Your task to perform on an android device: Open sound settings Image 0: 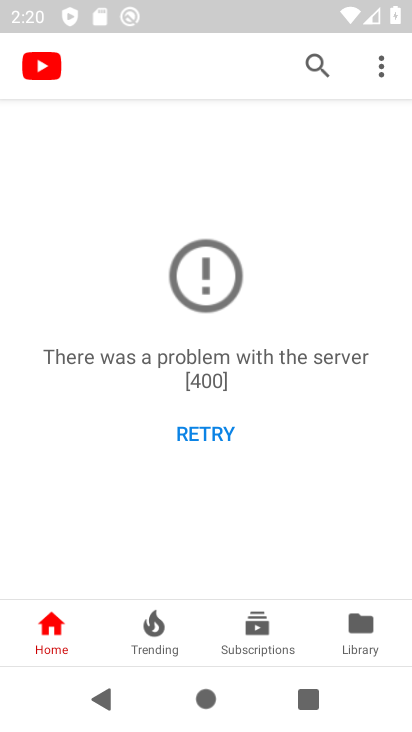
Step 0: click (190, 450)
Your task to perform on an android device: Open sound settings Image 1: 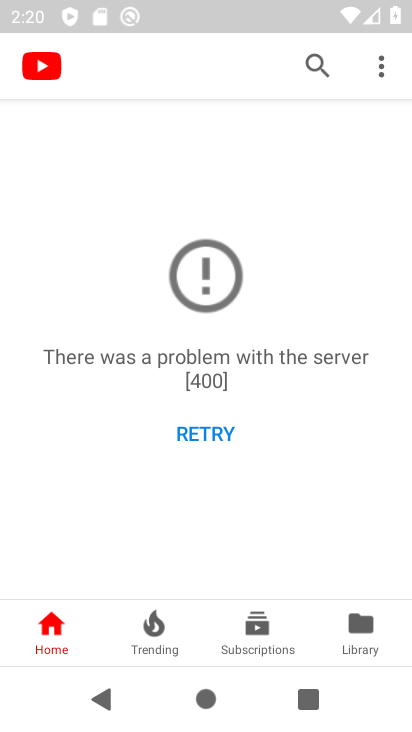
Step 1: click (213, 703)
Your task to perform on an android device: Open sound settings Image 2: 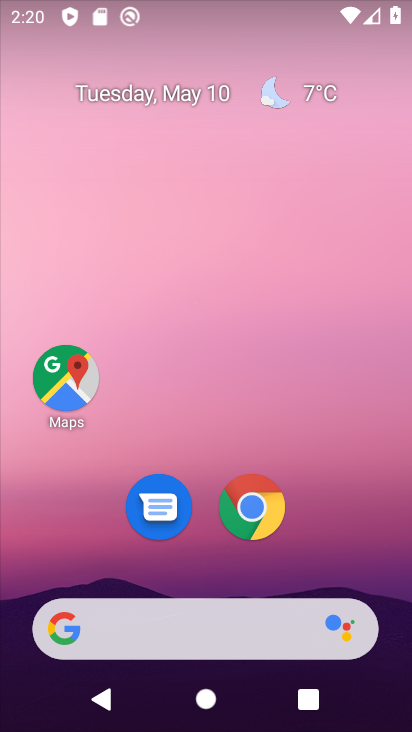
Step 2: drag from (398, 571) to (343, 138)
Your task to perform on an android device: Open sound settings Image 3: 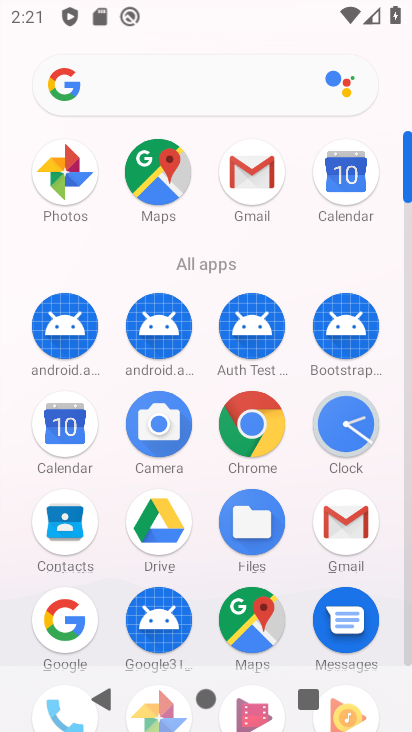
Step 3: click (409, 725)
Your task to perform on an android device: Open sound settings Image 4: 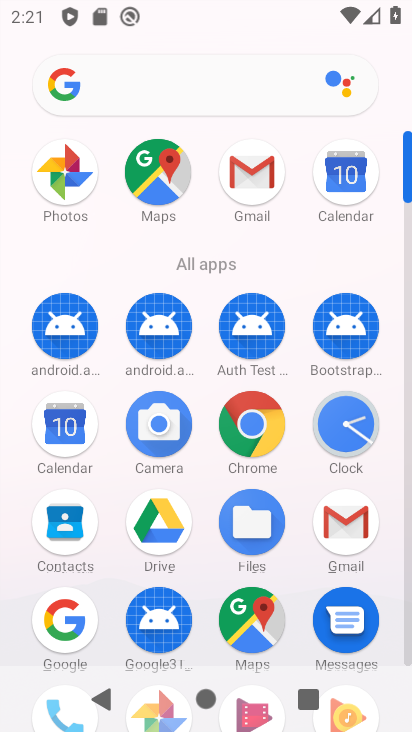
Step 4: click (407, 700)
Your task to perform on an android device: Open sound settings Image 5: 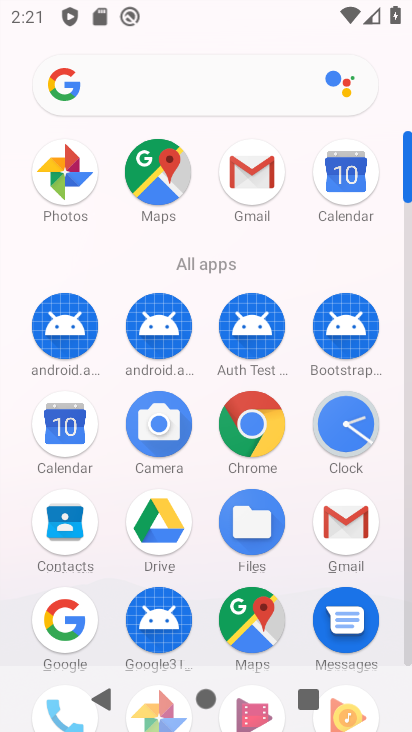
Step 5: click (407, 700)
Your task to perform on an android device: Open sound settings Image 6: 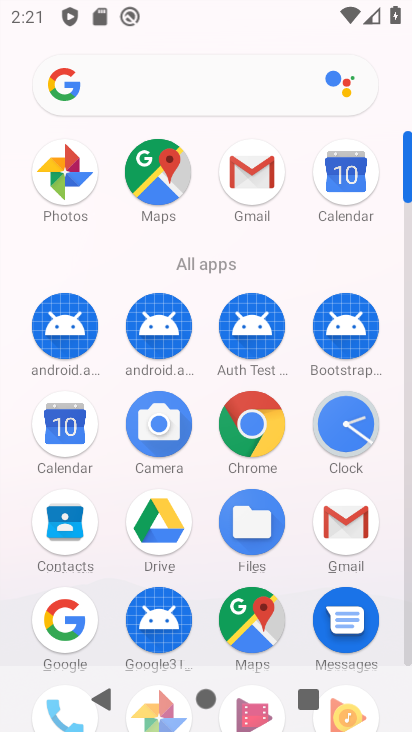
Step 6: click (406, 714)
Your task to perform on an android device: Open sound settings Image 7: 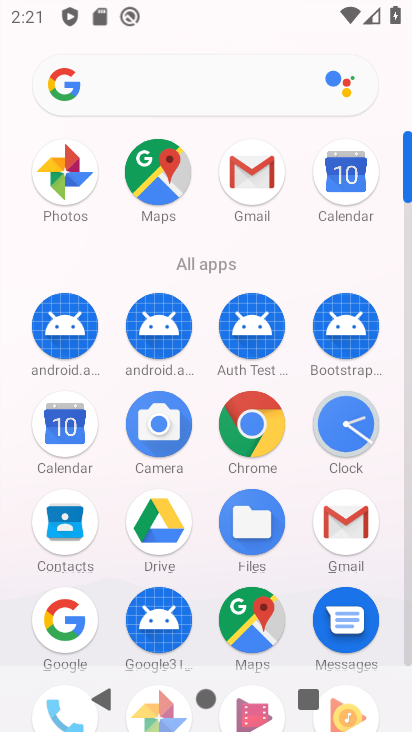
Step 7: drag from (411, 648) to (165, 683)
Your task to perform on an android device: Open sound settings Image 8: 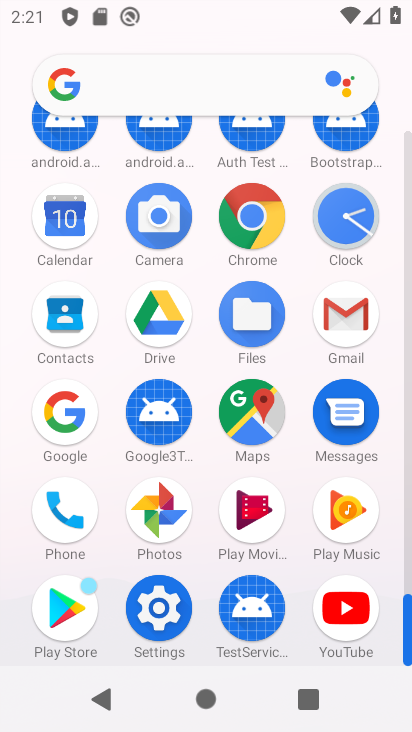
Step 8: click (126, 639)
Your task to perform on an android device: Open sound settings Image 9: 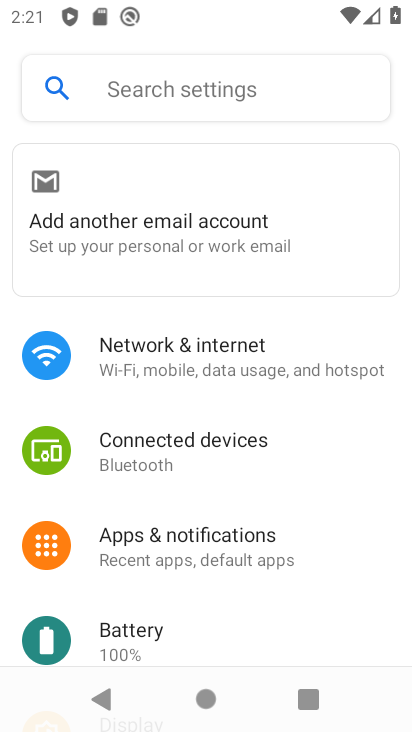
Step 9: drag from (142, 552) to (153, 244)
Your task to perform on an android device: Open sound settings Image 10: 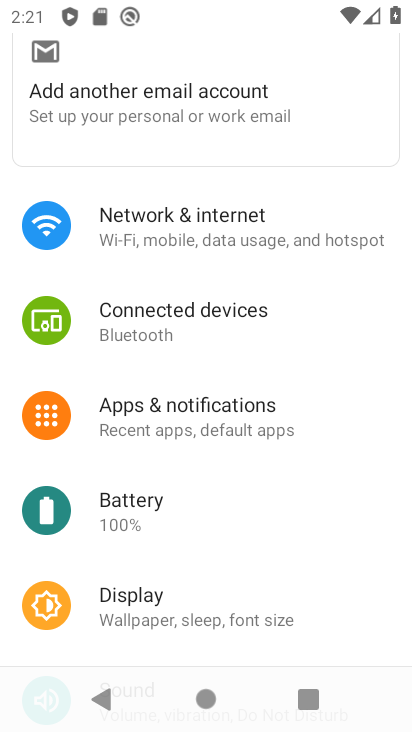
Step 10: drag from (167, 537) to (155, 266)
Your task to perform on an android device: Open sound settings Image 11: 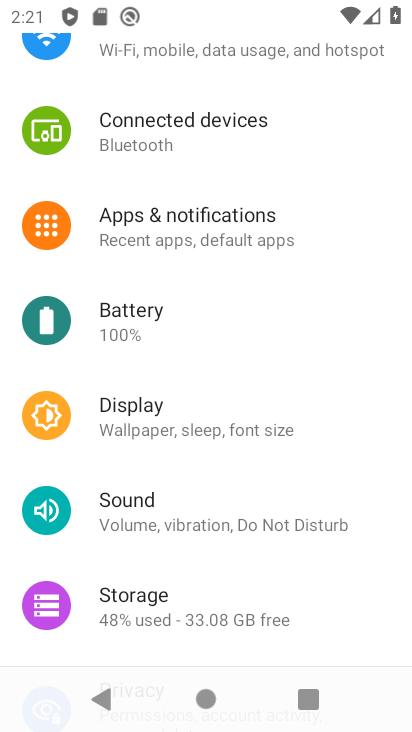
Step 11: click (196, 518)
Your task to perform on an android device: Open sound settings Image 12: 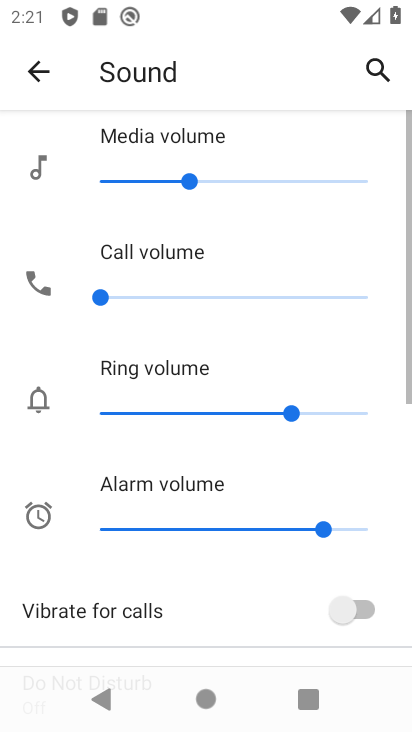
Step 12: task complete